Your task to perform on an android device: Do I have any events today? Image 0: 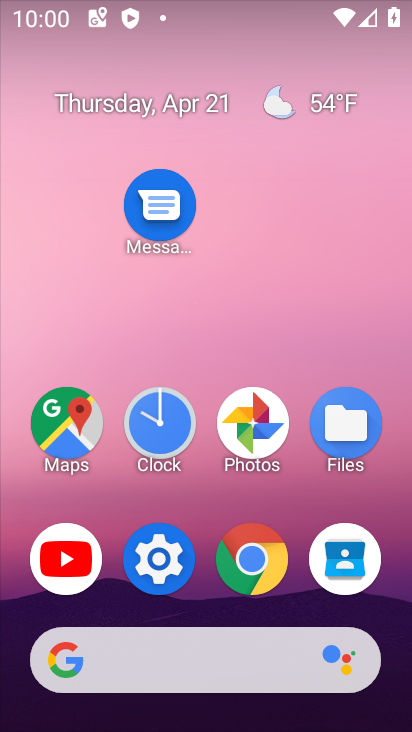
Step 0: drag from (216, 712) to (206, 2)
Your task to perform on an android device: Do I have any events today? Image 1: 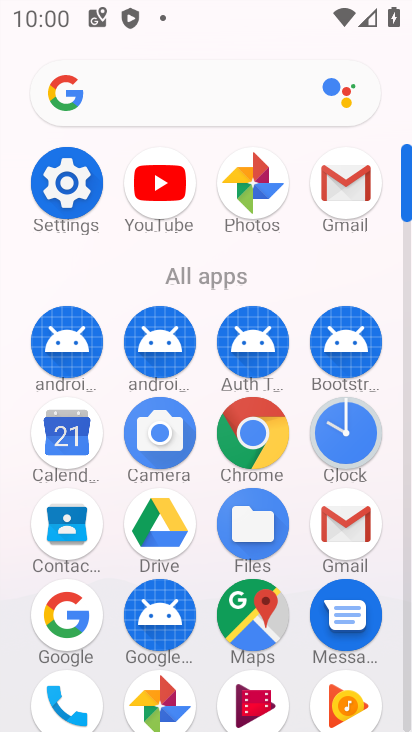
Step 1: click (73, 443)
Your task to perform on an android device: Do I have any events today? Image 2: 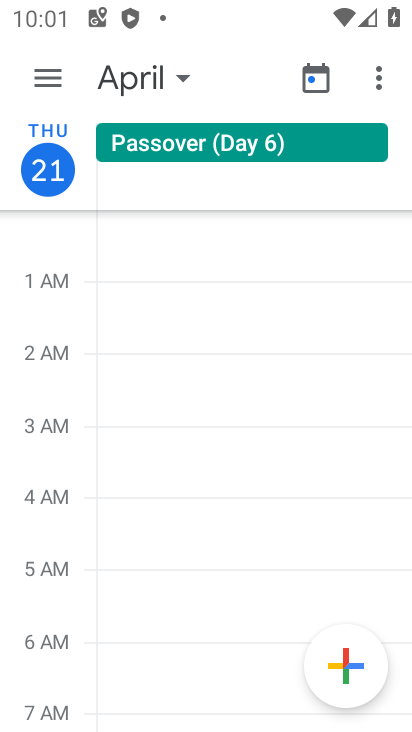
Step 2: click (180, 73)
Your task to perform on an android device: Do I have any events today? Image 3: 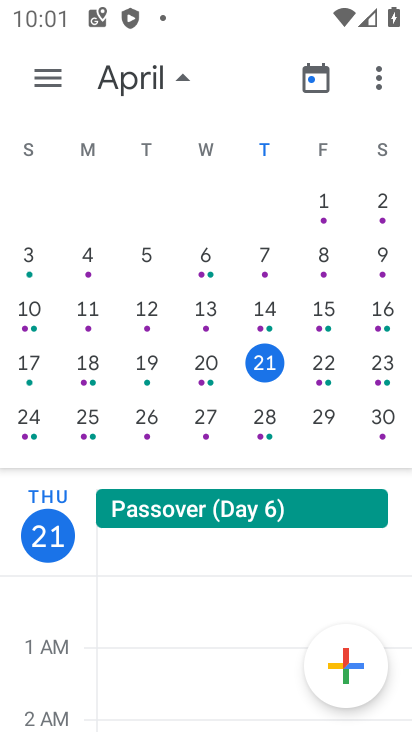
Step 3: click (263, 373)
Your task to perform on an android device: Do I have any events today? Image 4: 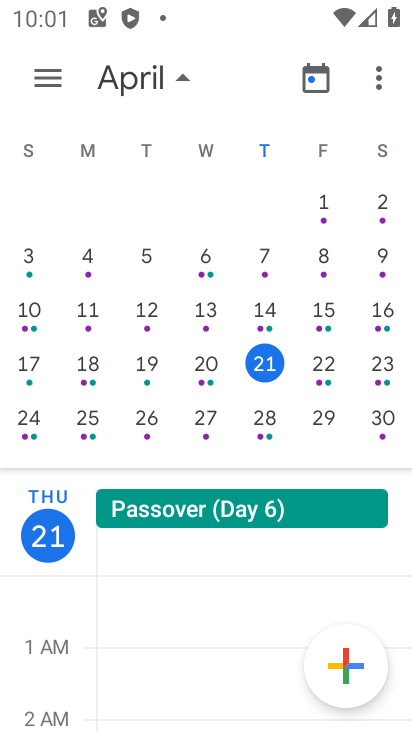
Step 4: click (263, 373)
Your task to perform on an android device: Do I have any events today? Image 5: 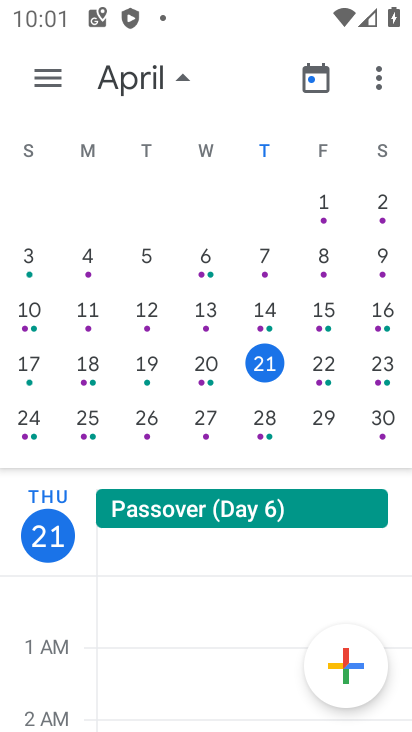
Step 5: drag from (214, 638) to (216, 286)
Your task to perform on an android device: Do I have any events today? Image 6: 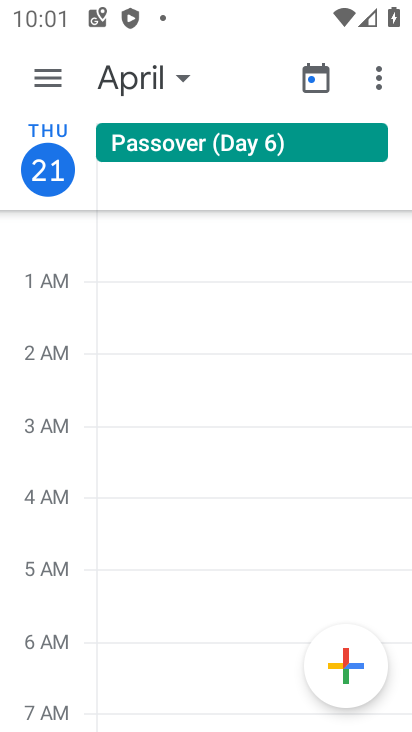
Step 6: click (192, 524)
Your task to perform on an android device: Do I have any events today? Image 7: 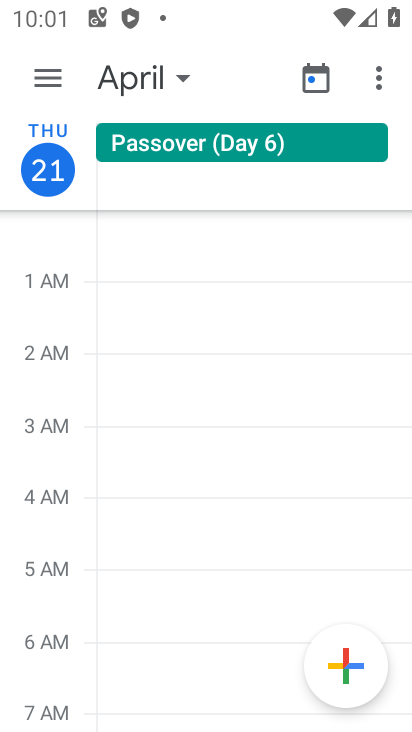
Step 7: task complete